Your task to perform on an android device: Go to notification settings Image 0: 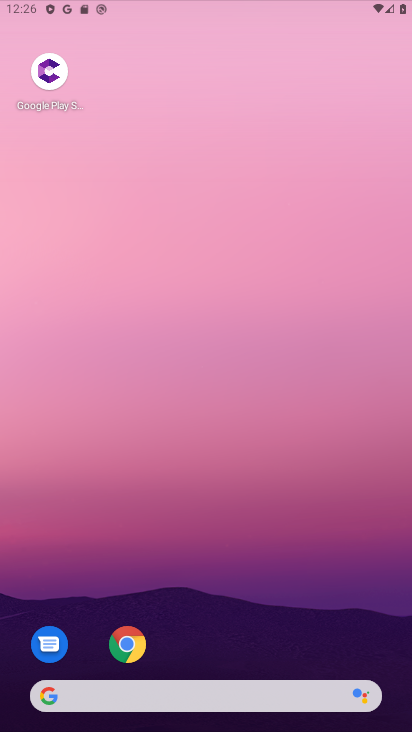
Step 0: drag from (176, 362) to (176, 81)
Your task to perform on an android device: Go to notification settings Image 1: 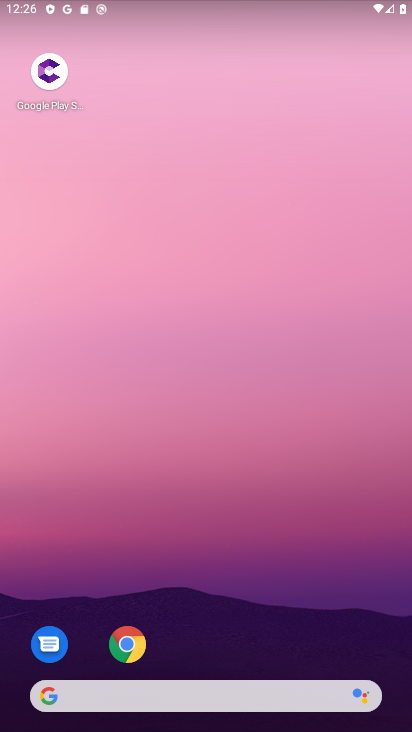
Step 1: drag from (211, 711) to (166, 0)
Your task to perform on an android device: Go to notification settings Image 2: 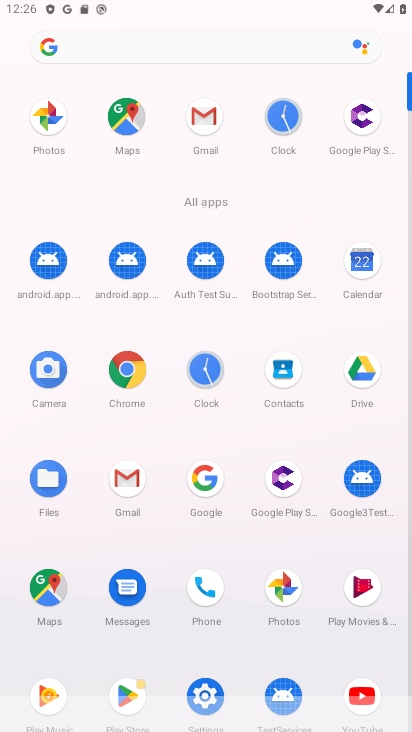
Step 2: click (208, 682)
Your task to perform on an android device: Go to notification settings Image 3: 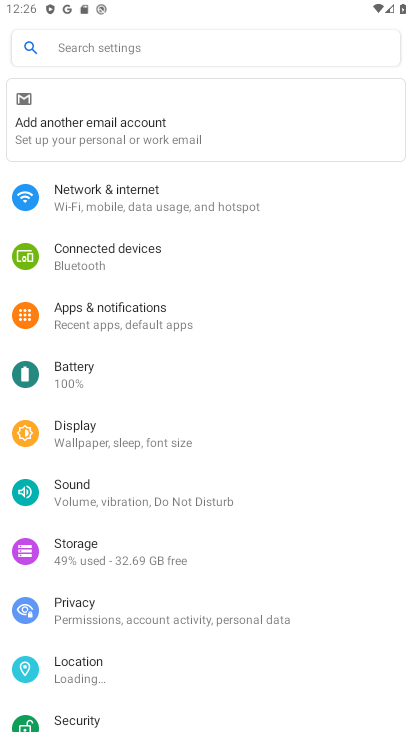
Step 3: click (155, 306)
Your task to perform on an android device: Go to notification settings Image 4: 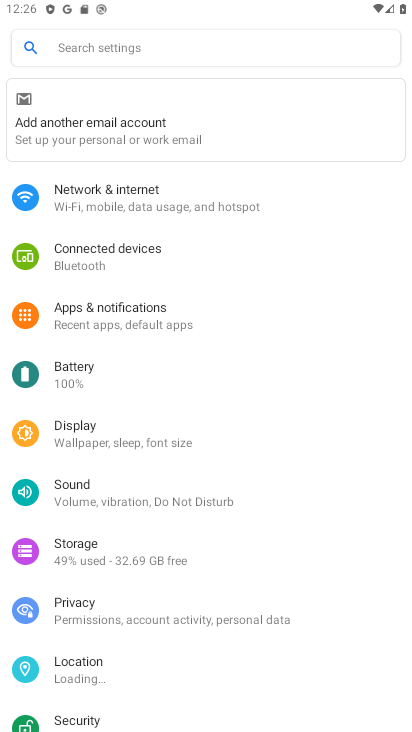
Step 4: click (155, 306)
Your task to perform on an android device: Go to notification settings Image 5: 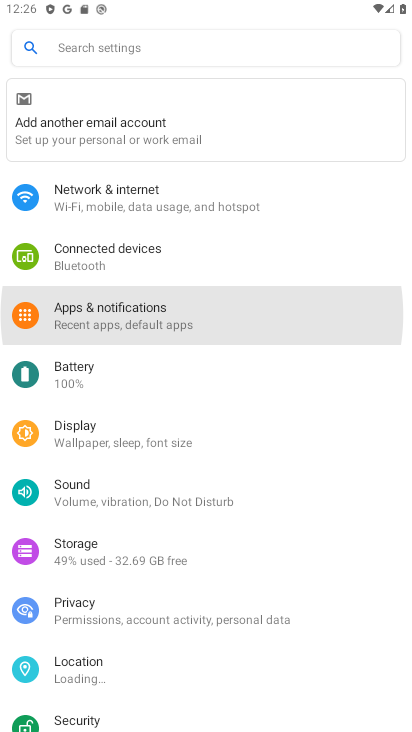
Step 5: click (155, 306)
Your task to perform on an android device: Go to notification settings Image 6: 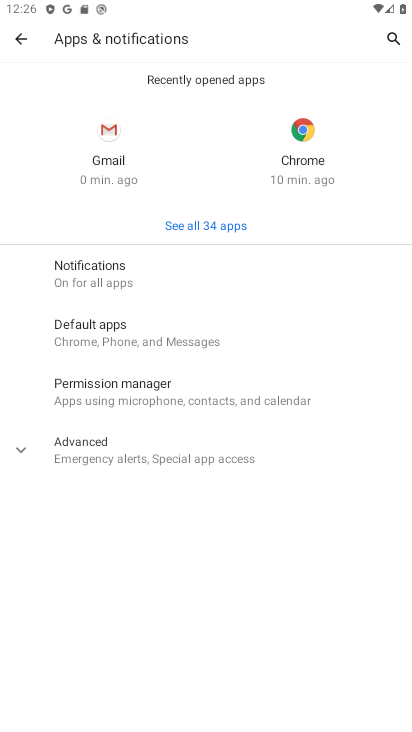
Step 6: click (118, 272)
Your task to perform on an android device: Go to notification settings Image 7: 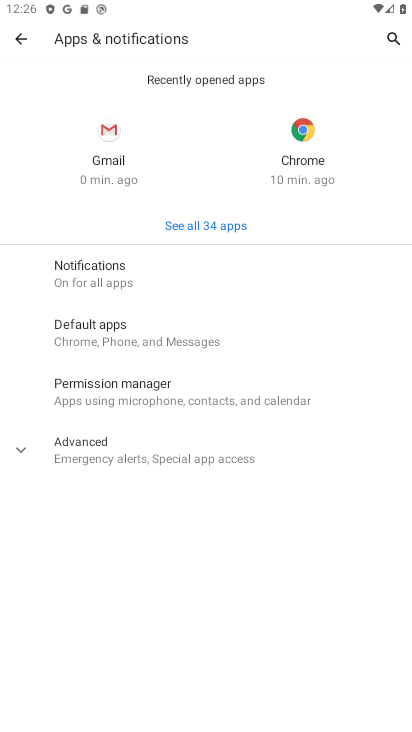
Step 7: click (118, 272)
Your task to perform on an android device: Go to notification settings Image 8: 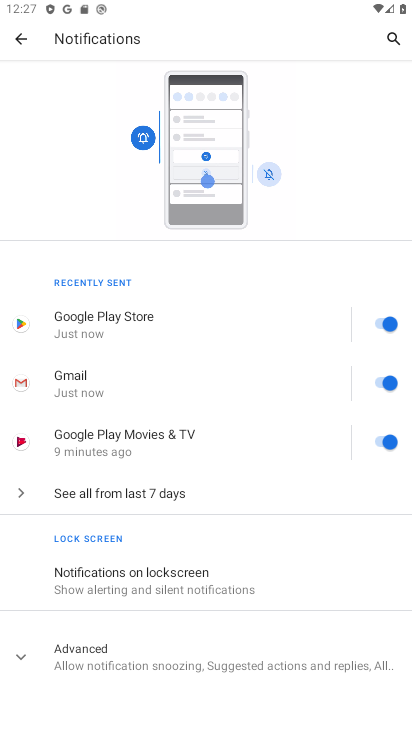
Step 8: click (204, 659)
Your task to perform on an android device: Go to notification settings Image 9: 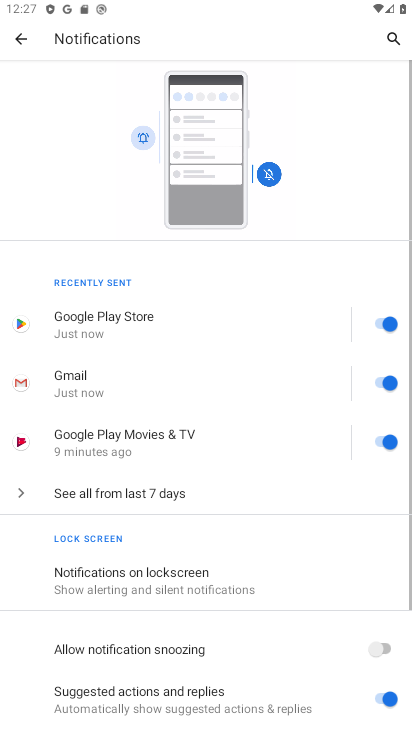
Step 9: task complete